Your task to perform on an android device: Open Google Chrome and open the bookmarks view Image 0: 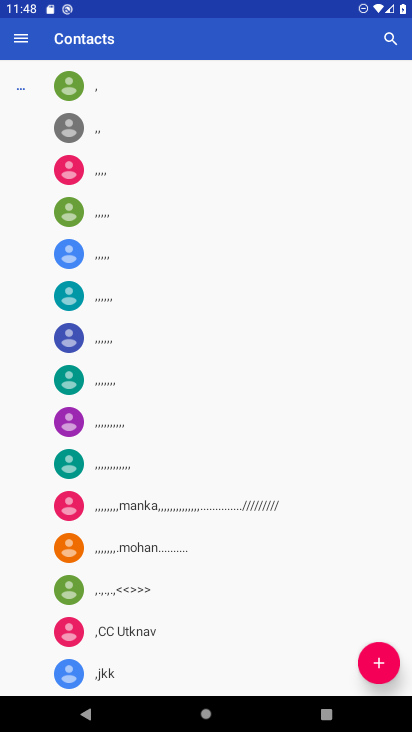
Step 0: press home button
Your task to perform on an android device: Open Google Chrome and open the bookmarks view Image 1: 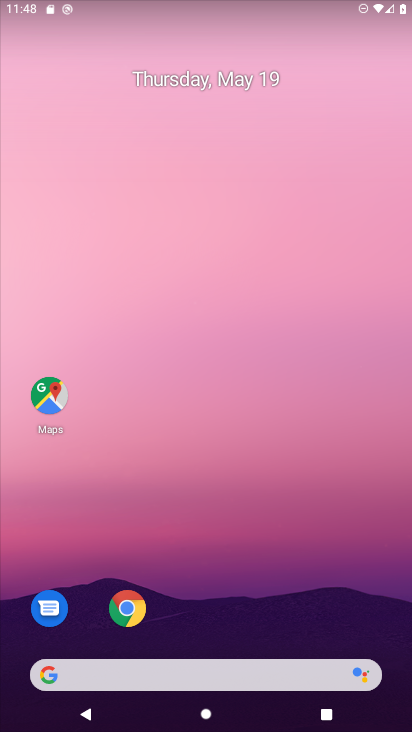
Step 1: click (137, 602)
Your task to perform on an android device: Open Google Chrome and open the bookmarks view Image 2: 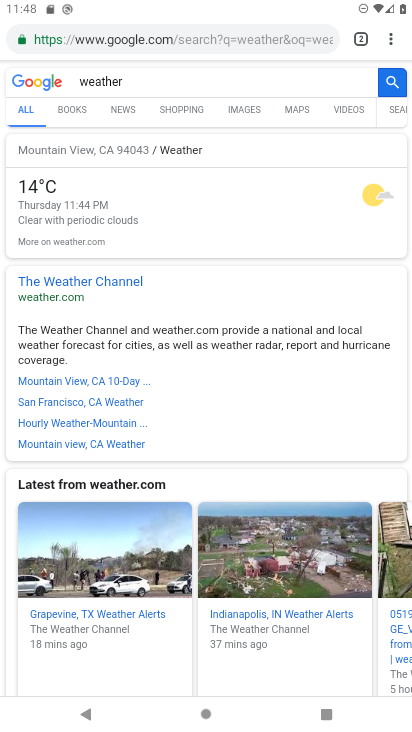
Step 2: task complete